Your task to perform on an android device: turn off sleep mode Image 0: 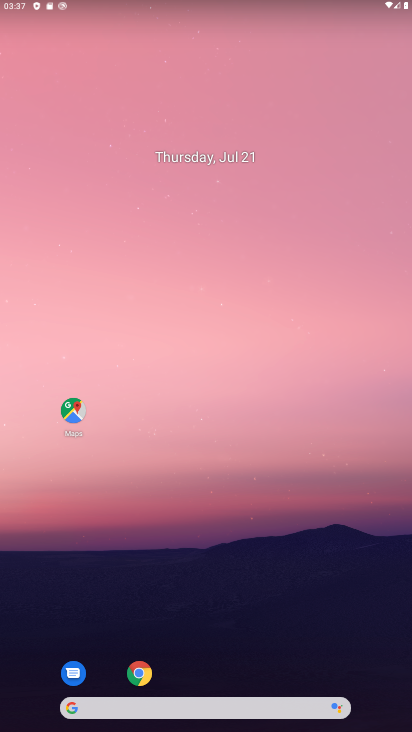
Step 0: drag from (330, 614) to (226, 75)
Your task to perform on an android device: turn off sleep mode Image 1: 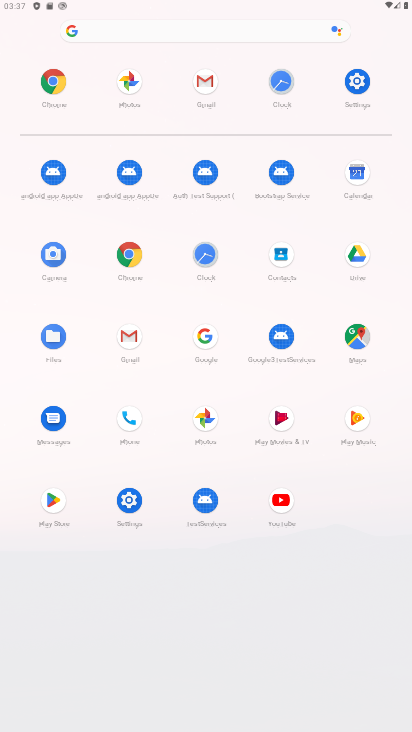
Step 1: click (351, 81)
Your task to perform on an android device: turn off sleep mode Image 2: 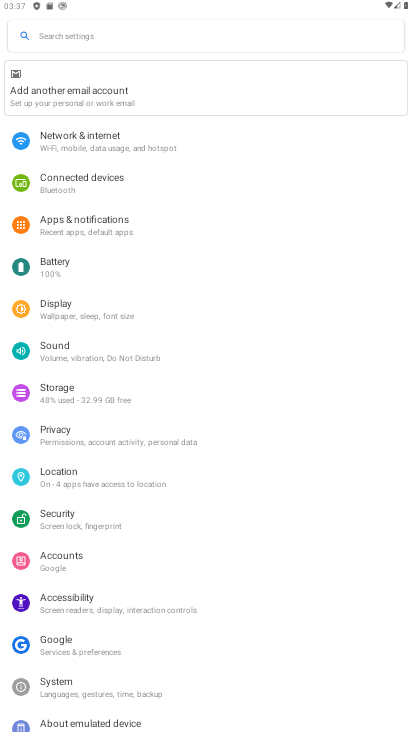
Step 2: click (81, 313)
Your task to perform on an android device: turn off sleep mode Image 3: 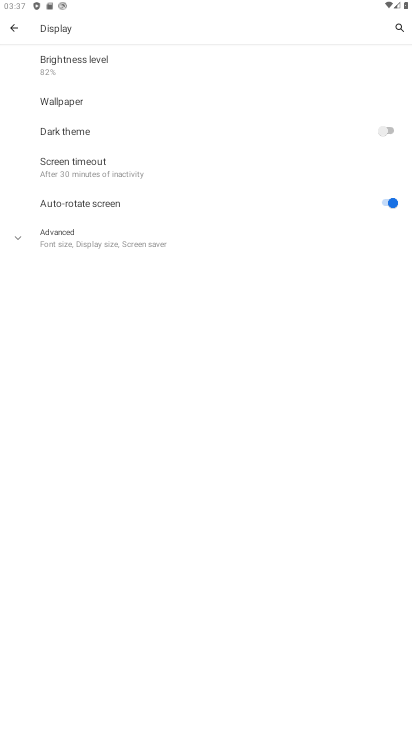
Step 3: click (129, 171)
Your task to perform on an android device: turn off sleep mode Image 4: 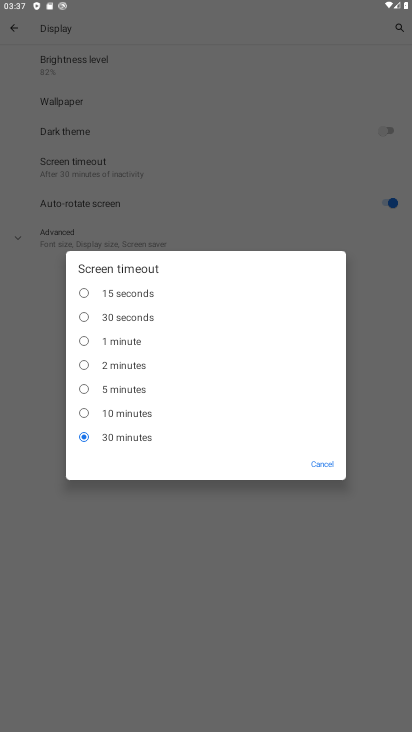
Step 4: task complete